Your task to perform on an android device: Show the shopping cart on newegg.com. Search for "usb-c to usb-a" on newegg.com, select the first entry, and add it to the cart. Image 0: 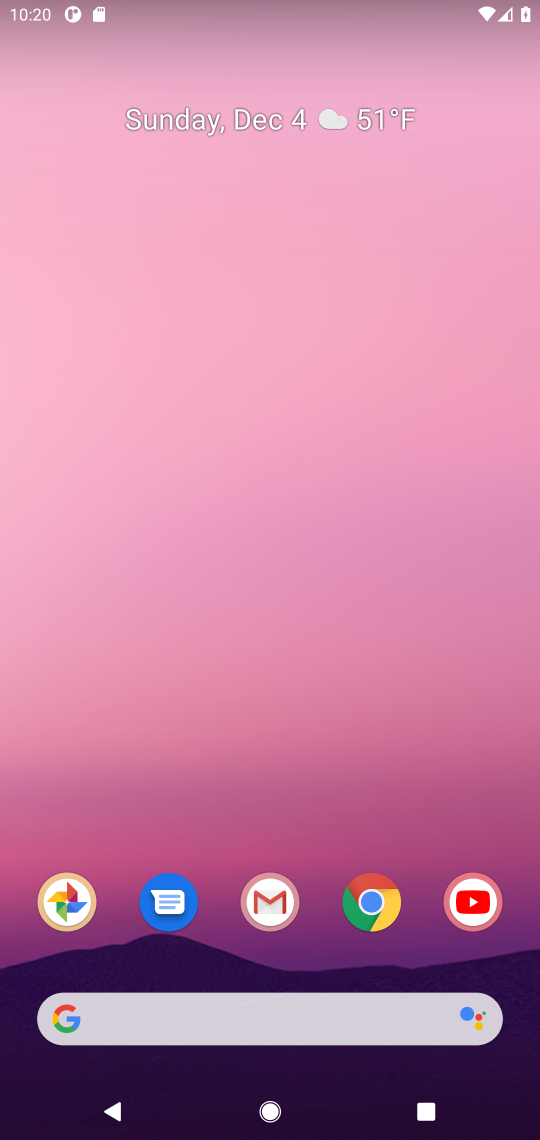
Step 0: click (363, 936)
Your task to perform on an android device: Show the shopping cart on newegg.com. Search for "usb-c to usb-a" on newegg.com, select the first entry, and add it to the cart. Image 1: 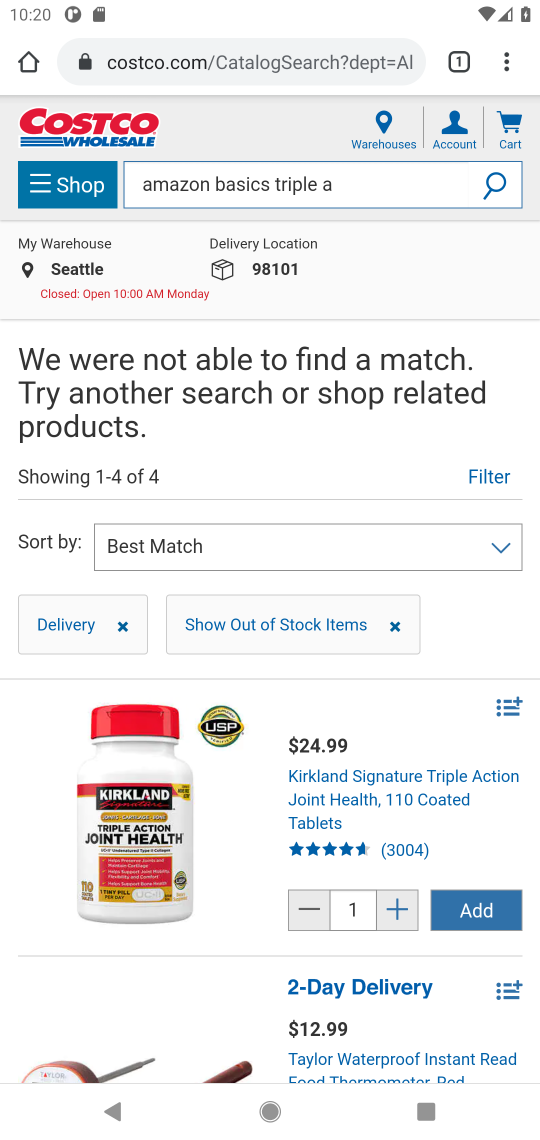
Step 1: click (511, 114)
Your task to perform on an android device: Show the shopping cart on newegg.com. Search for "usb-c to usb-a" on newegg.com, select the first entry, and add it to the cart. Image 2: 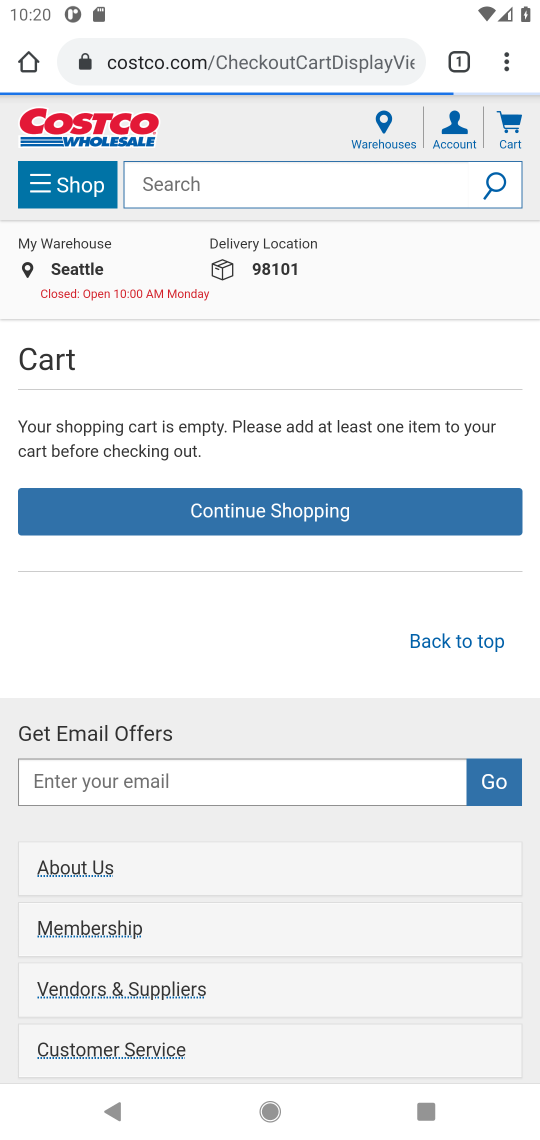
Step 2: click (297, 58)
Your task to perform on an android device: Show the shopping cart on newegg.com. Search for "usb-c to usb-a" on newegg.com, select the first entry, and add it to the cart. Image 3: 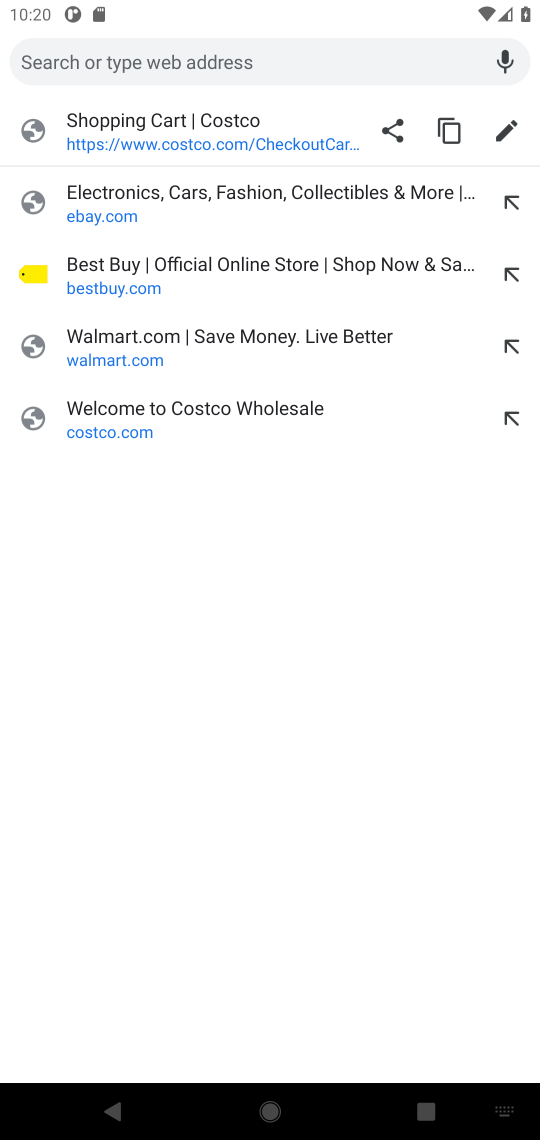
Step 3: type "newegg"
Your task to perform on an android device: Show the shopping cart on newegg.com. Search for "usb-c to usb-a" on newegg.com, select the first entry, and add it to the cart. Image 4: 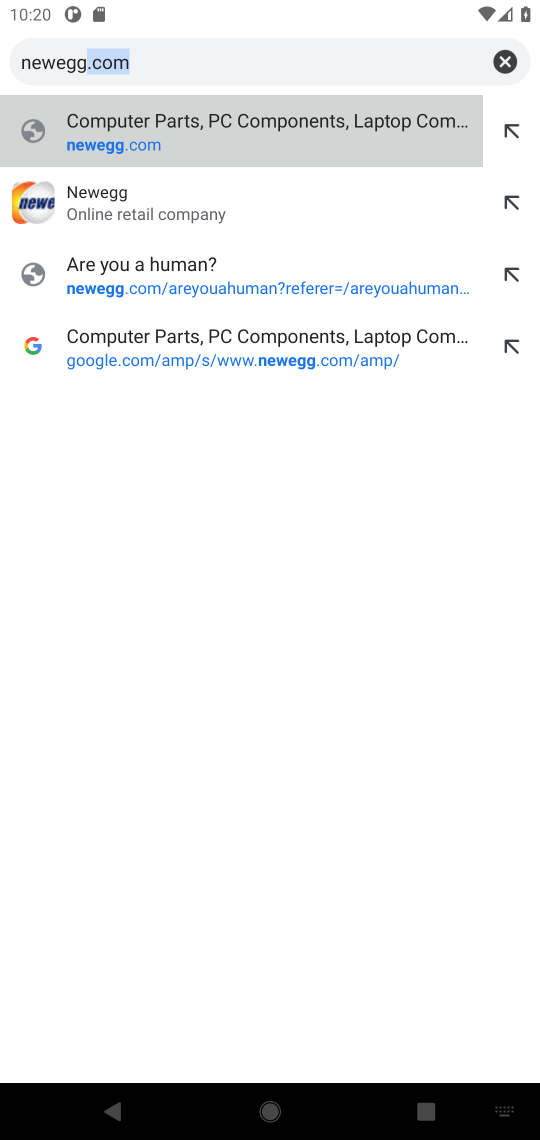
Step 4: click (116, 206)
Your task to perform on an android device: Show the shopping cart on newegg.com. Search for "usb-c to usb-a" on newegg.com, select the first entry, and add it to the cart. Image 5: 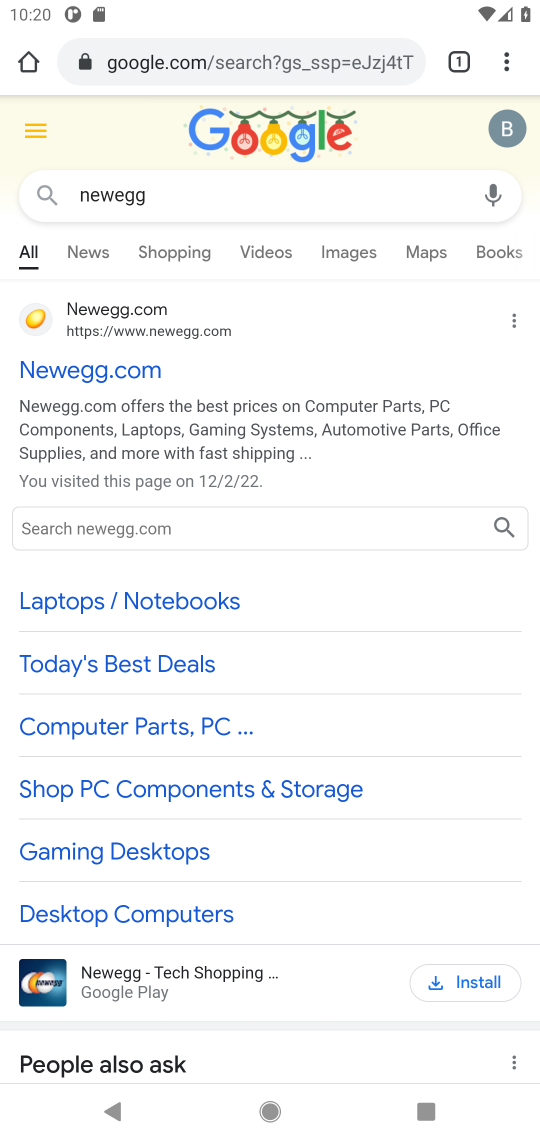
Step 5: click (91, 363)
Your task to perform on an android device: Show the shopping cart on newegg.com. Search for "usb-c to usb-a" on newegg.com, select the first entry, and add it to the cart. Image 6: 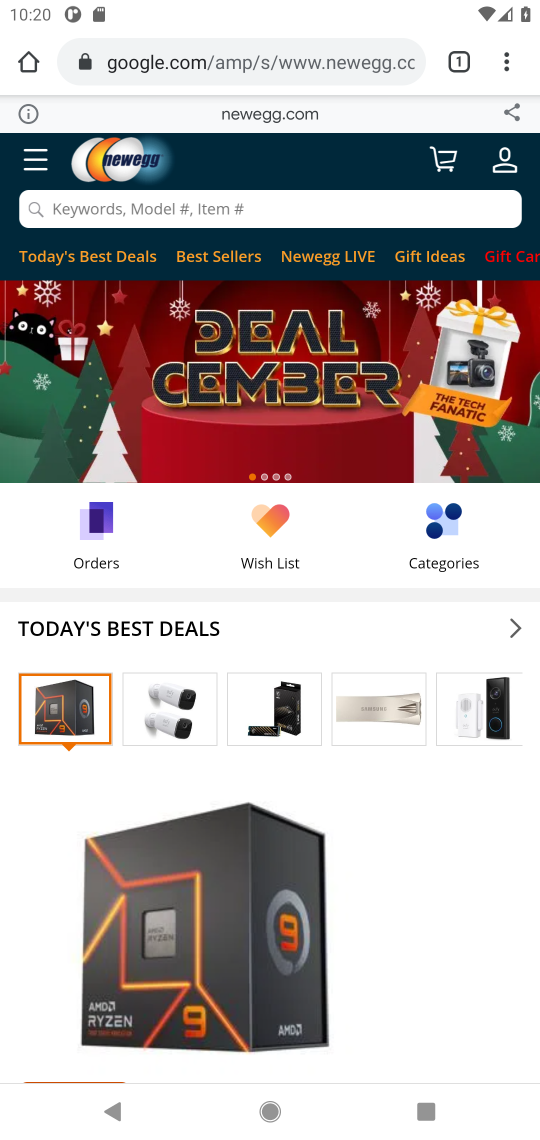
Step 6: click (440, 150)
Your task to perform on an android device: Show the shopping cart on newegg.com. Search for "usb-c to usb-a" on newegg.com, select the first entry, and add it to the cart. Image 7: 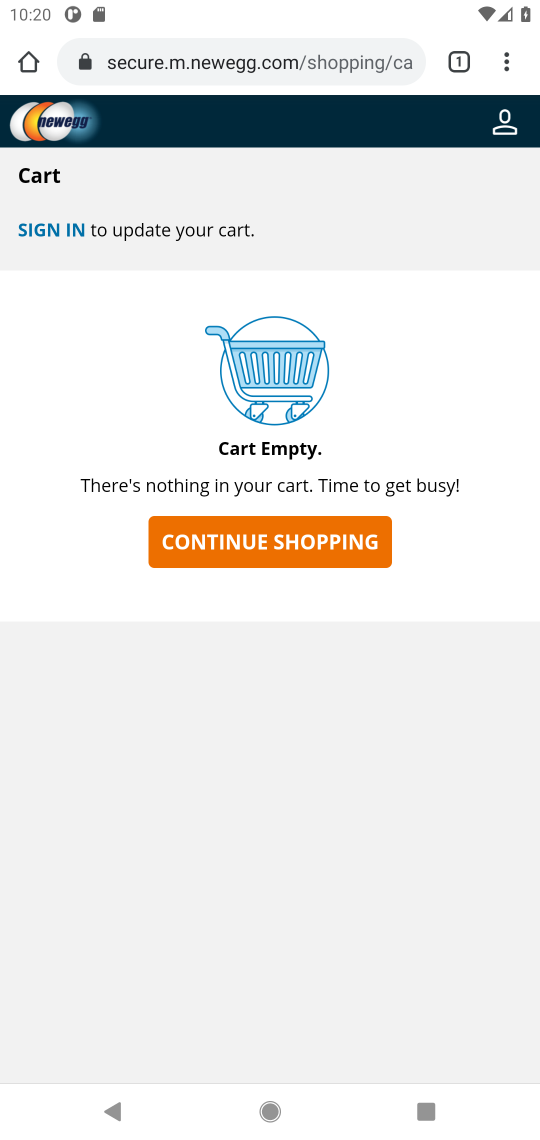
Step 7: click (231, 543)
Your task to perform on an android device: Show the shopping cart on newegg.com. Search for "usb-c to usb-a" on newegg.com, select the first entry, and add it to the cart. Image 8: 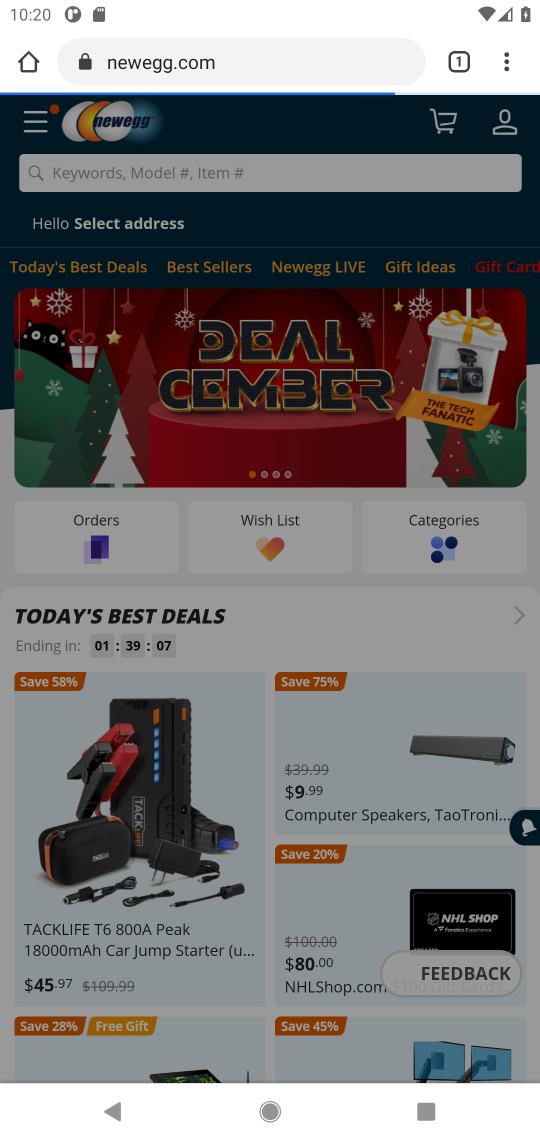
Step 8: click (157, 168)
Your task to perform on an android device: Show the shopping cart on newegg.com. Search for "usb-c to usb-a" on newegg.com, select the first entry, and add it to the cart. Image 9: 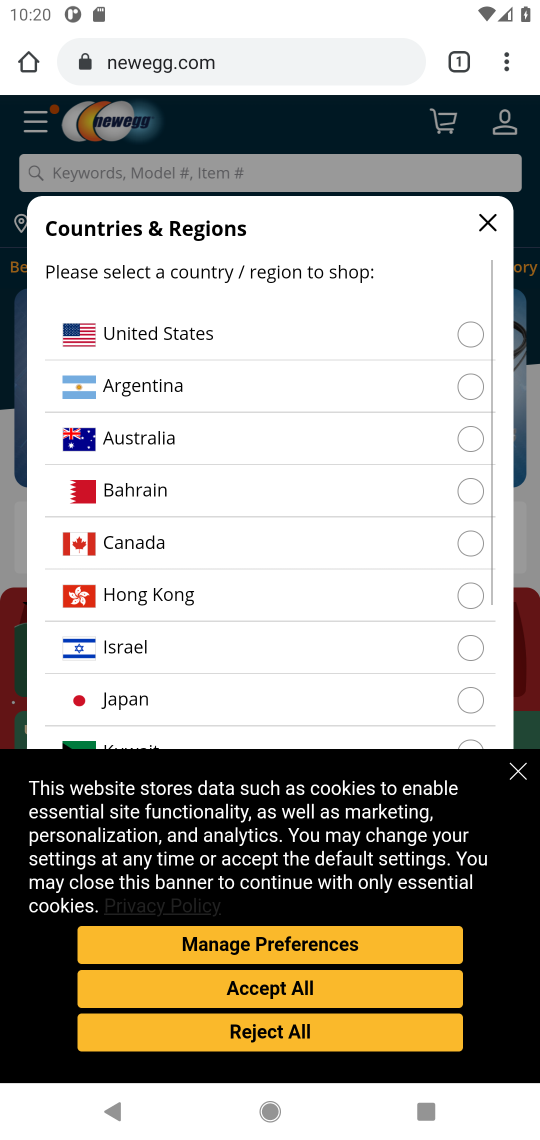
Step 9: click (404, 984)
Your task to perform on an android device: Show the shopping cart on newegg.com. Search for "usb-c to usb-a" on newegg.com, select the first entry, and add it to the cart. Image 10: 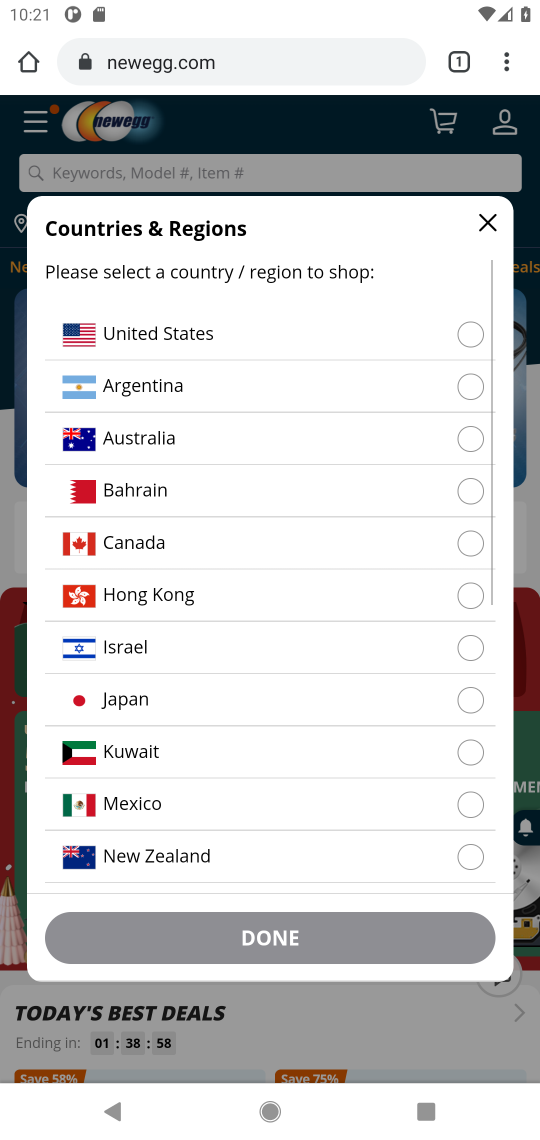
Step 10: click (464, 650)
Your task to perform on an android device: Show the shopping cart on newegg.com. Search for "usb-c to usb-a" on newegg.com, select the first entry, and add it to the cart. Image 11: 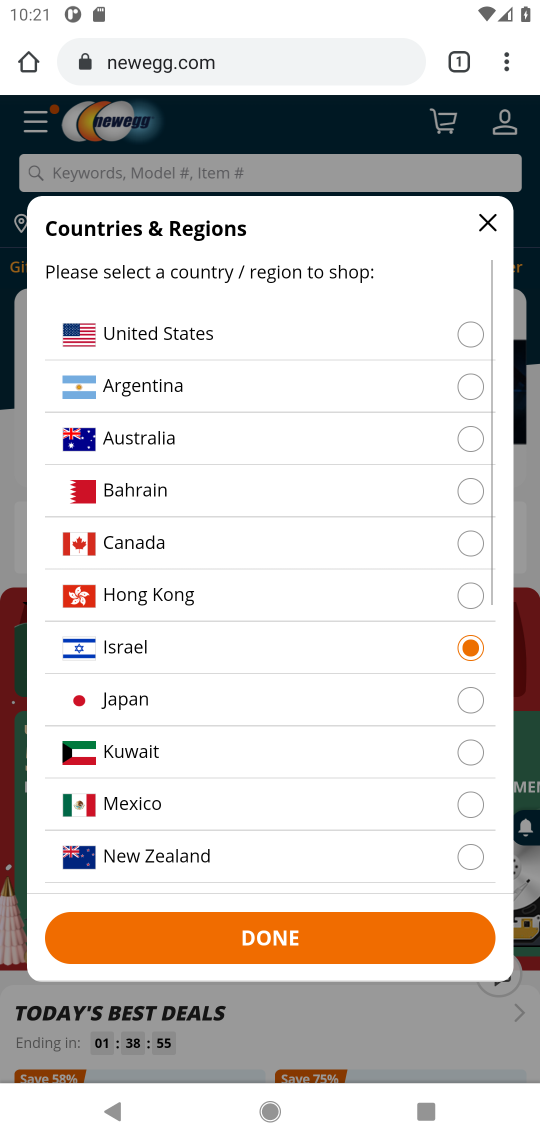
Step 11: click (335, 938)
Your task to perform on an android device: Show the shopping cart on newegg.com. Search for "usb-c to usb-a" on newegg.com, select the first entry, and add it to the cart. Image 12: 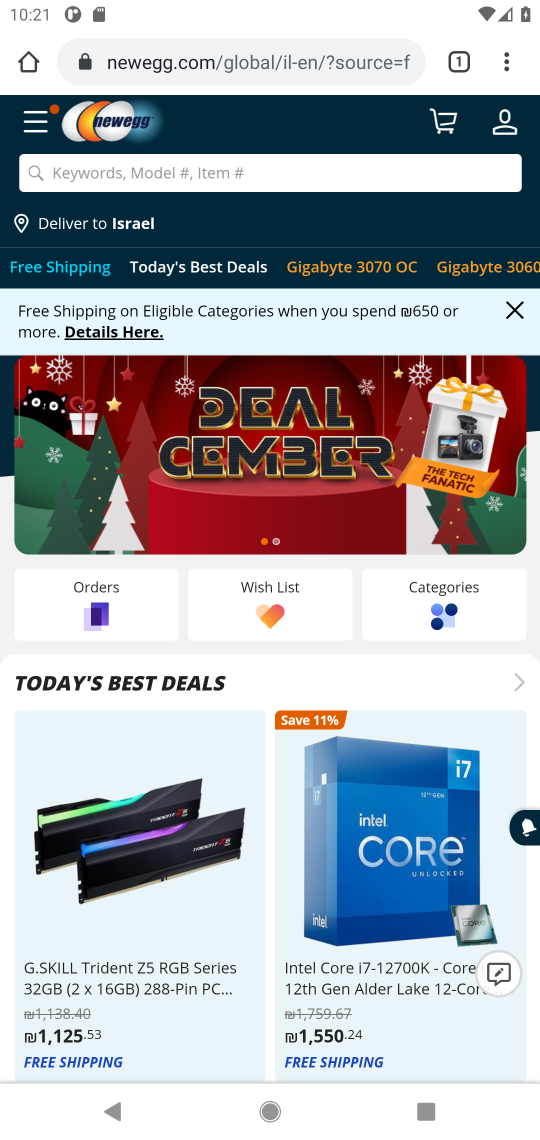
Step 12: click (332, 160)
Your task to perform on an android device: Show the shopping cart on newegg.com. Search for "usb-c to usb-a" on newegg.com, select the first entry, and add it to the cart. Image 13: 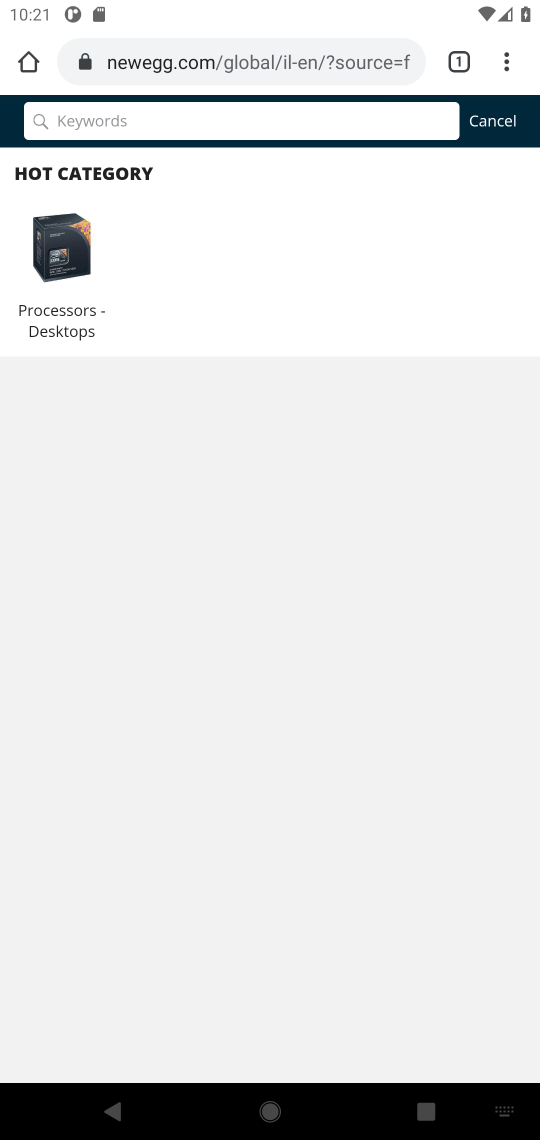
Step 13: type "usb-c to usb-a"
Your task to perform on an android device: Show the shopping cart on newegg.com. Search for "usb-c to usb-a" on newegg.com, select the first entry, and add it to the cart. Image 14: 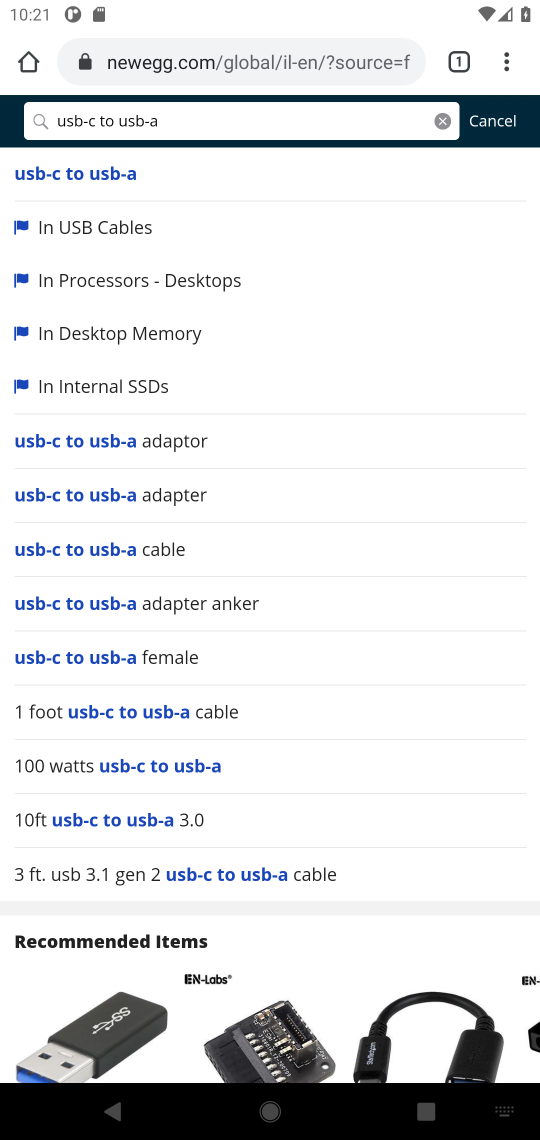
Step 14: click (99, 169)
Your task to perform on an android device: Show the shopping cart on newegg.com. Search for "usb-c to usb-a" on newegg.com, select the first entry, and add it to the cart. Image 15: 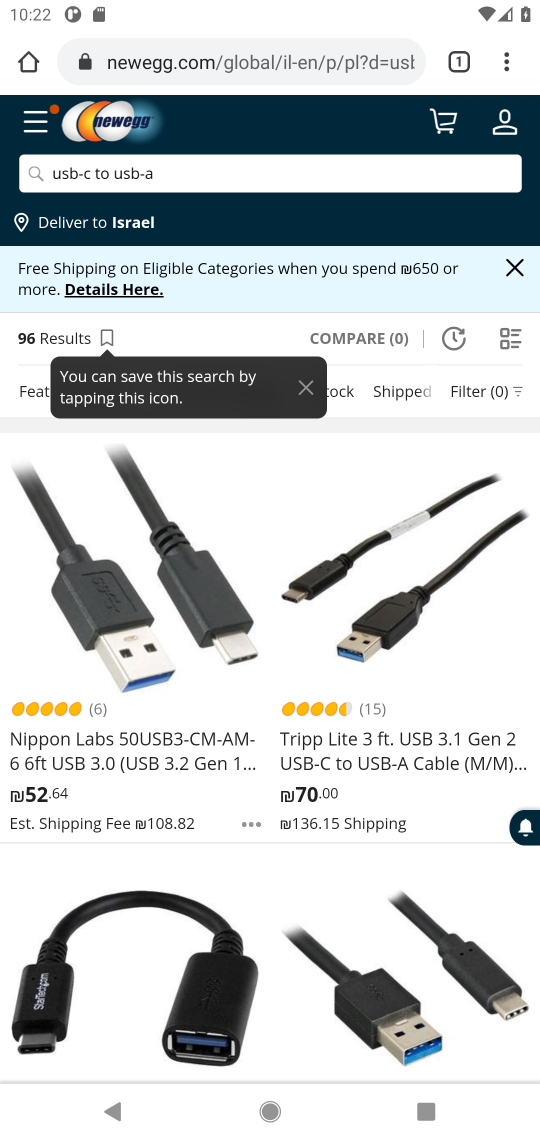
Step 15: click (178, 762)
Your task to perform on an android device: Show the shopping cart on newegg.com. Search for "usb-c to usb-a" on newegg.com, select the first entry, and add it to the cart. Image 16: 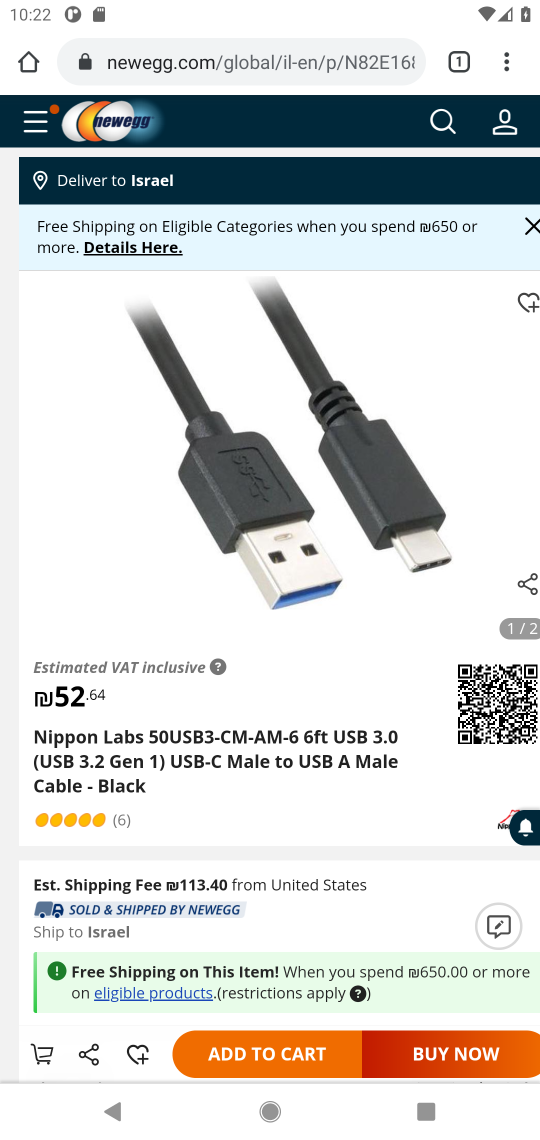
Step 16: click (295, 1057)
Your task to perform on an android device: Show the shopping cart on newegg.com. Search for "usb-c to usb-a" on newegg.com, select the first entry, and add it to the cart. Image 17: 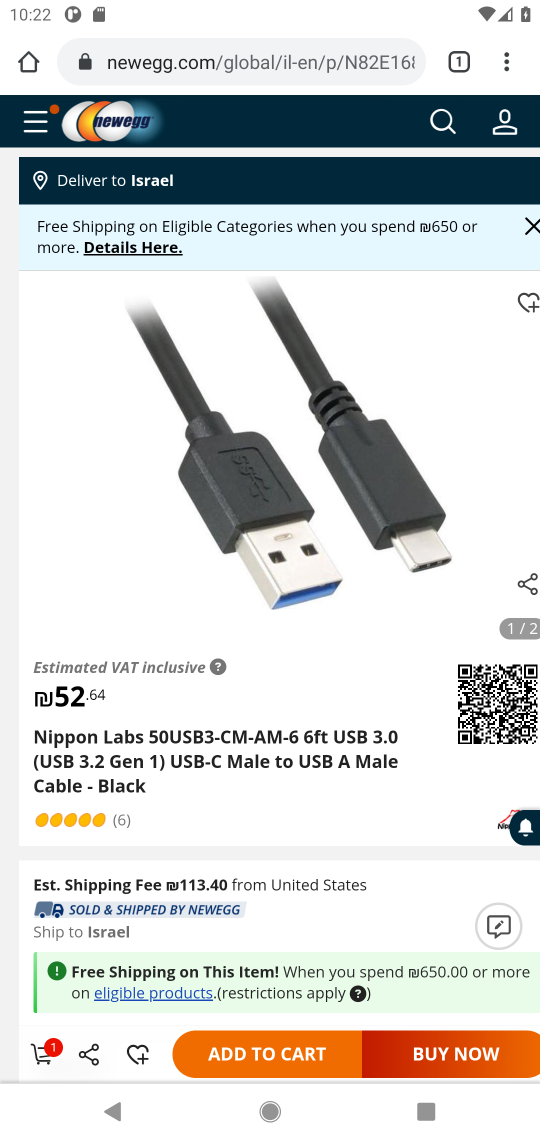
Step 17: task complete